Your task to perform on an android device: Go to notification settings Image 0: 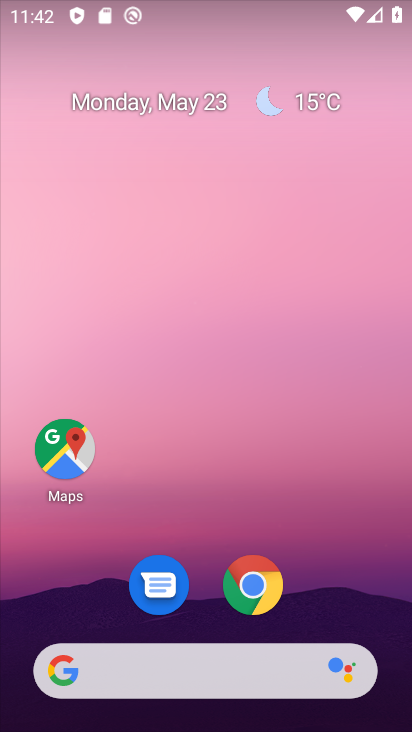
Step 0: drag from (240, 511) to (244, 33)
Your task to perform on an android device: Go to notification settings Image 1: 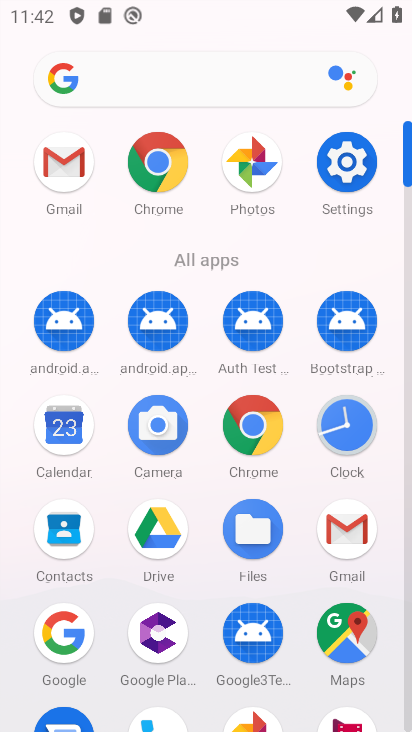
Step 1: click (341, 165)
Your task to perform on an android device: Go to notification settings Image 2: 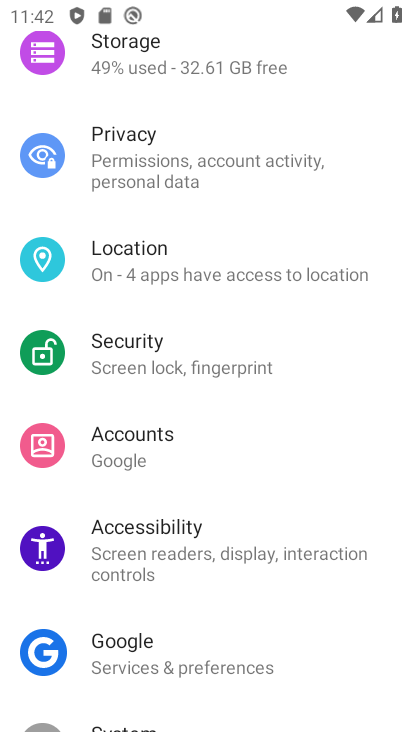
Step 2: drag from (252, 242) to (219, 620)
Your task to perform on an android device: Go to notification settings Image 3: 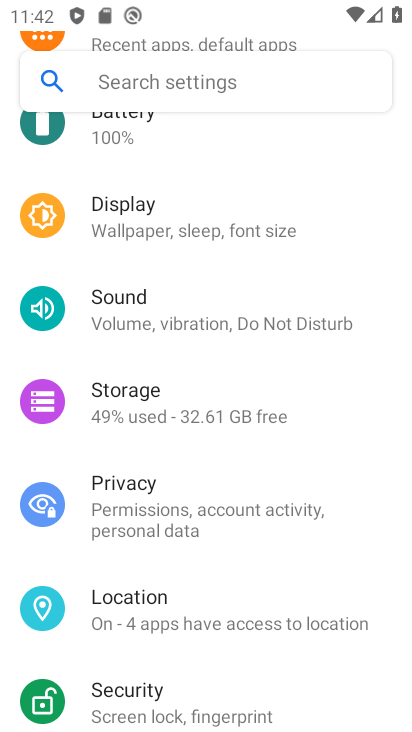
Step 3: drag from (243, 197) to (189, 561)
Your task to perform on an android device: Go to notification settings Image 4: 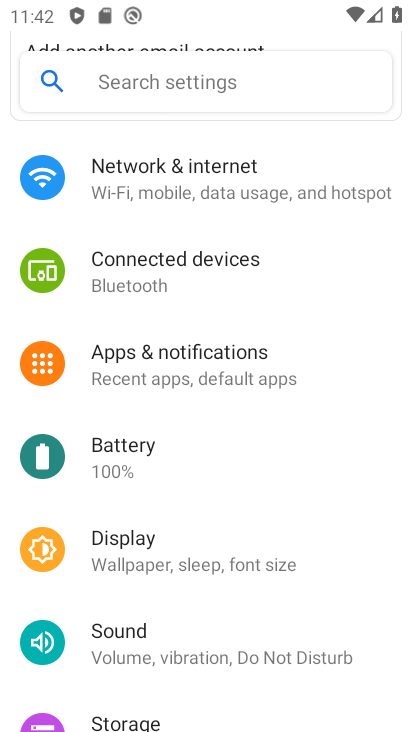
Step 4: click (231, 356)
Your task to perform on an android device: Go to notification settings Image 5: 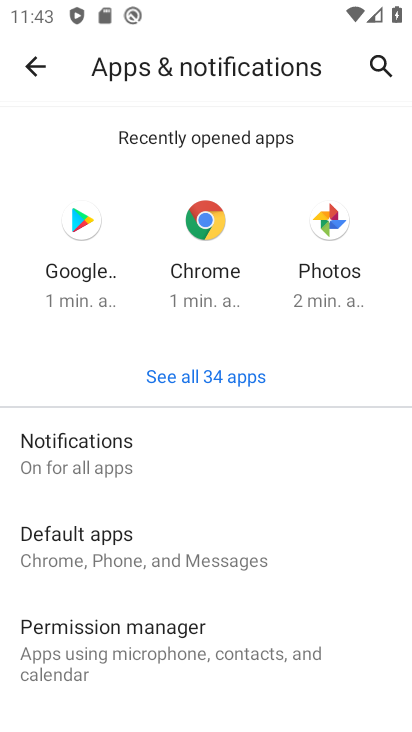
Step 5: click (173, 453)
Your task to perform on an android device: Go to notification settings Image 6: 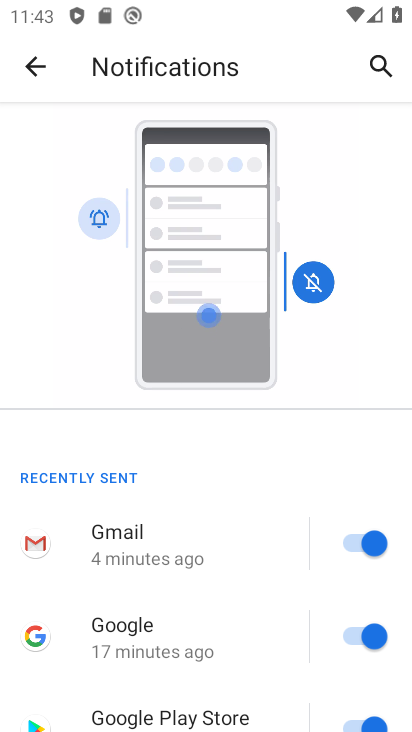
Step 6: task complete